Your task to perform on an android device: check battery use Image 0: 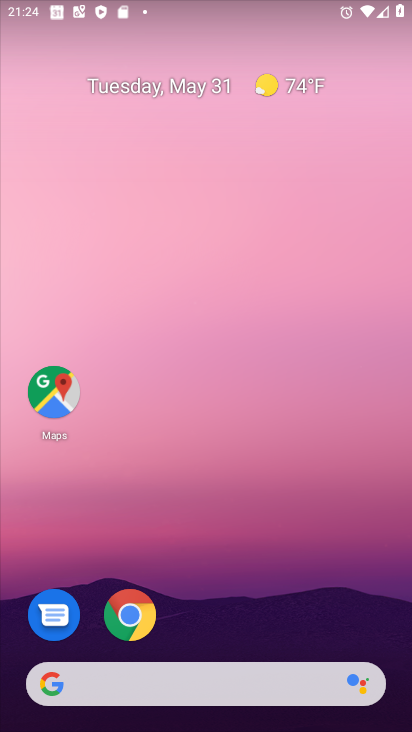
Step 0: drag from (216, 626) to (217, 200)
Your task to perform on an android device: check battery use Image 1: 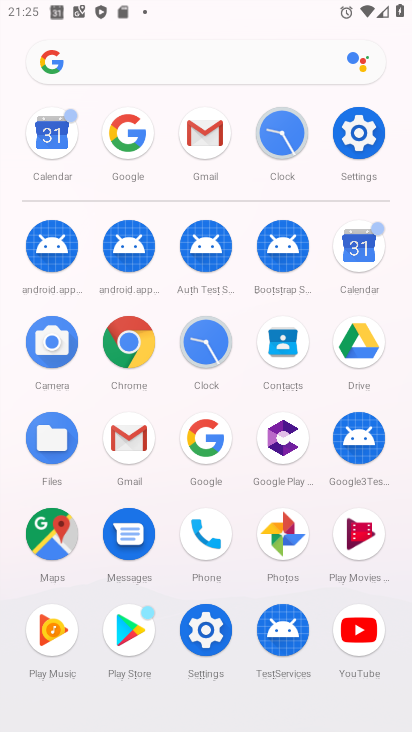
Step 1: click (367, 134)
Your task to perform on an android device: check battery use Image 2: 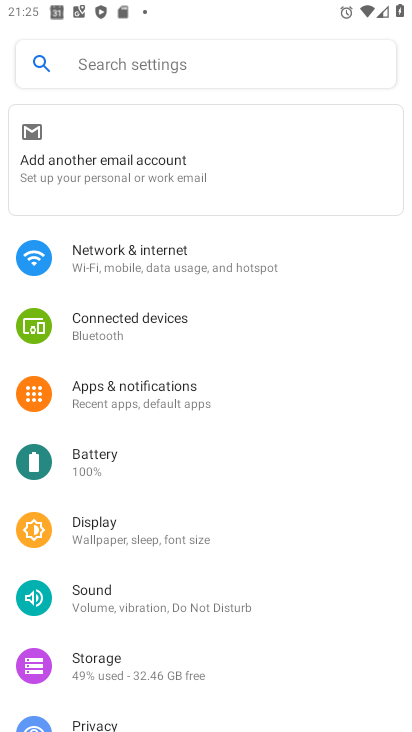
Step 2: click (158, 463)
Your task to perform on an android device: check battery use Image 3: 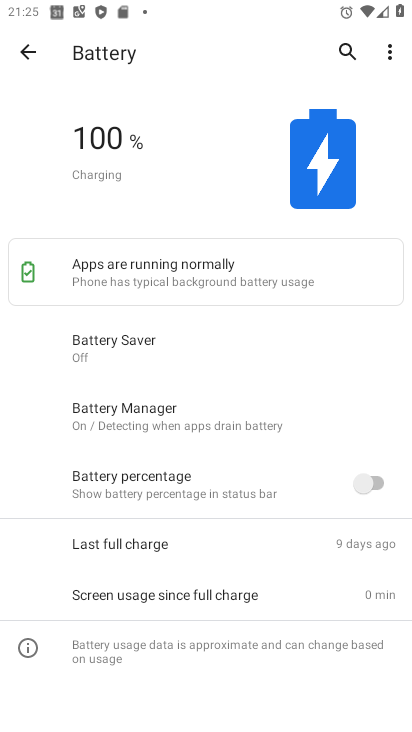
Step 3: click (387, 39)
Your task to perform on an android device: check battery use Image 4: 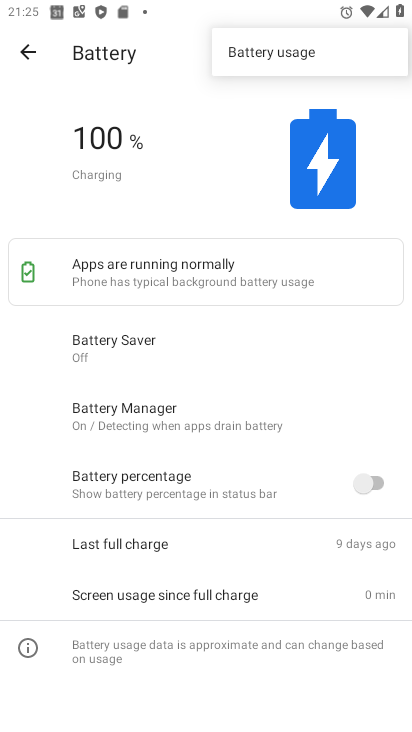
Step 4: click (326, 52)
Your task to perform on an android device: check battery use Image 5: 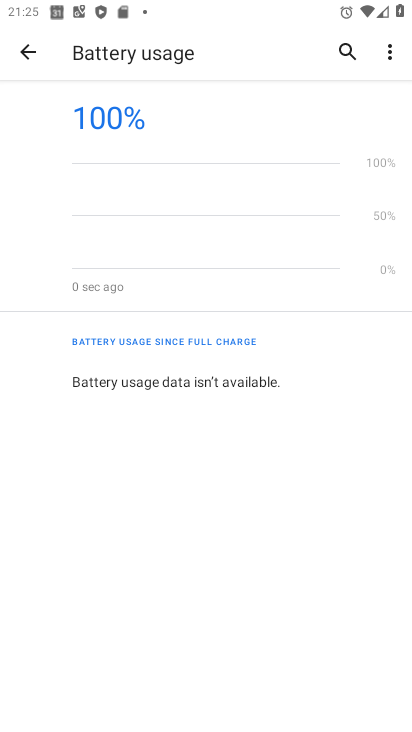
Step 5: task complete